Your task to perform on an android device: Open the calendar and show me this week's events? Image 0: 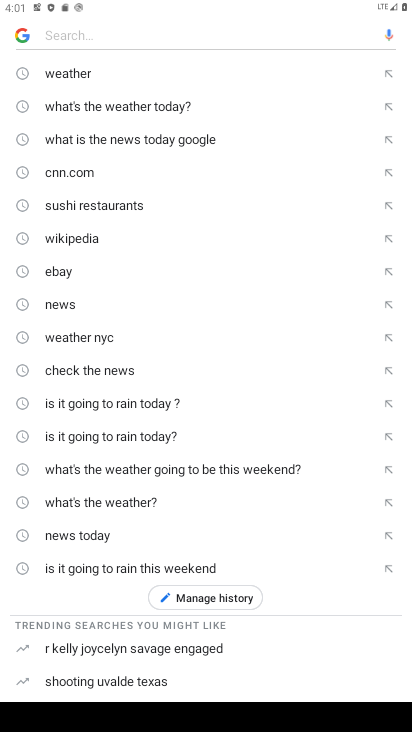
Step 0: press home button
Your task to perform on an android device: Open the calendar and show me this week's events? Image 1: 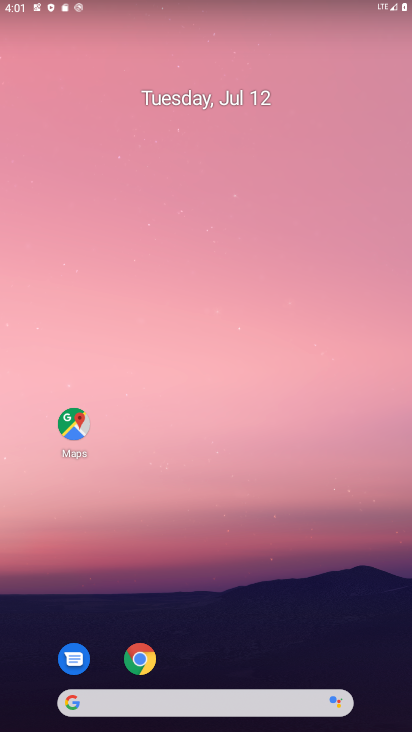
Step 1: drag from (211, 695) to (167, 224)
Your task to perform on an android device: Open the calendar and show me this week's events? Image 2: 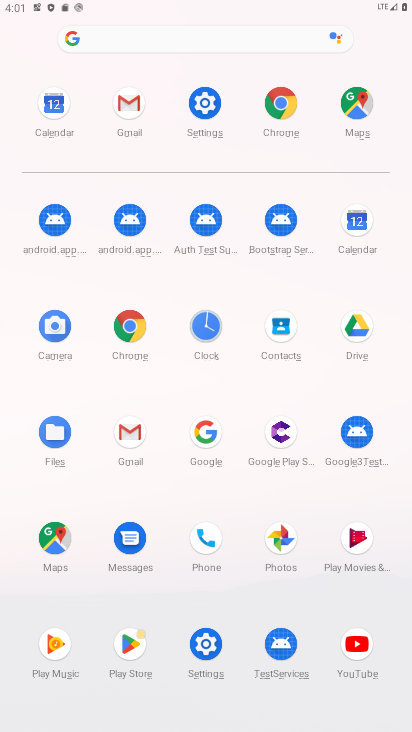
Step 2: click (360, 215)
Your task to perform on an android device: Open the calendar and show me this week's events? Image 3: 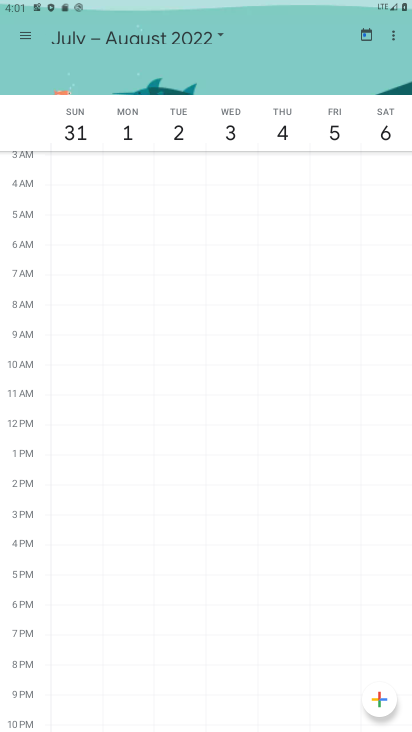
Step 3: click (220, 34)
Your task to perform on an android device: Open the calendar and show me this week's events? Image 4: 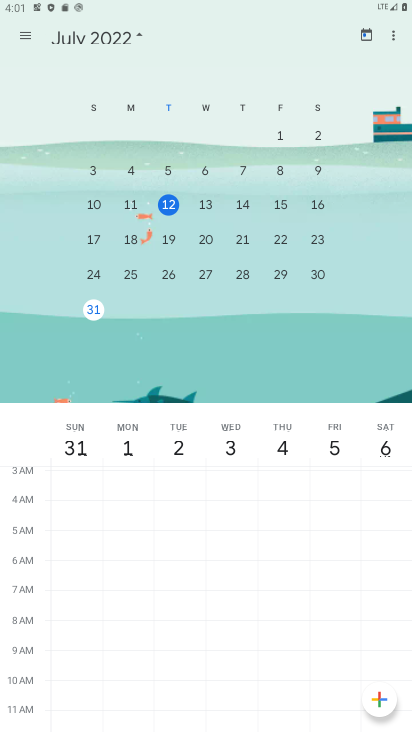
Step 4: click (29, 32)
Your task to perform on an android device: Open the calendar and show me this week's events? Image 5: 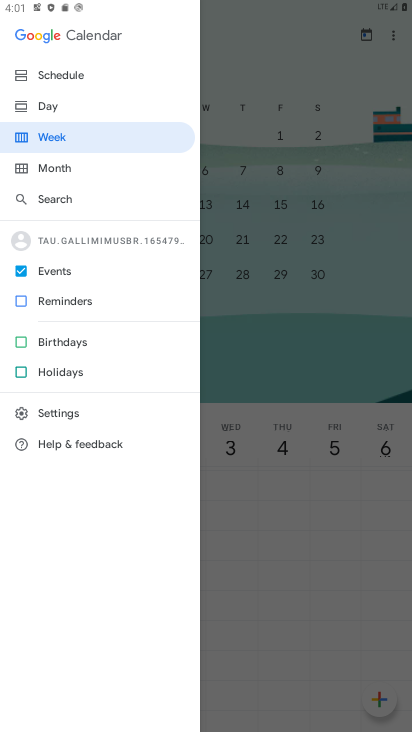
Step 5: click (60, 141)
Your task to perform on an android device: Open the calendar and show me this week's events? Image 6: 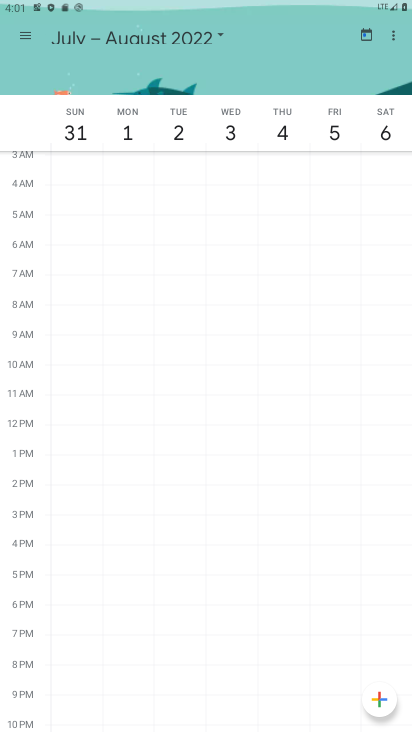
Step 6: task complete